Your task to perform on an android device: open a new tab in the chrome app Image 0: 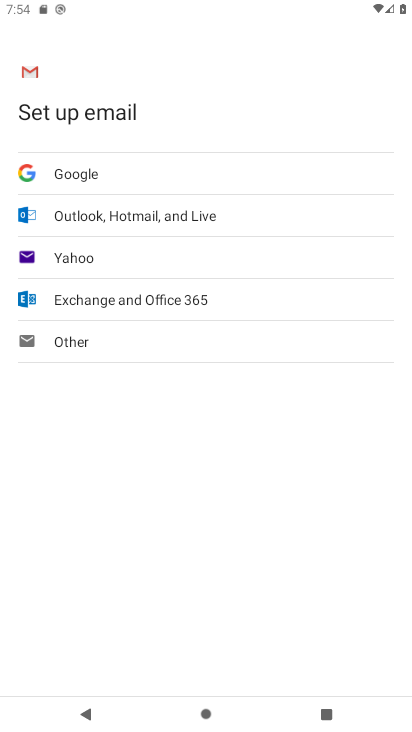
Step 0: press home button
Your task to perform on an android device: open a new tab in the chrome app Image 1: 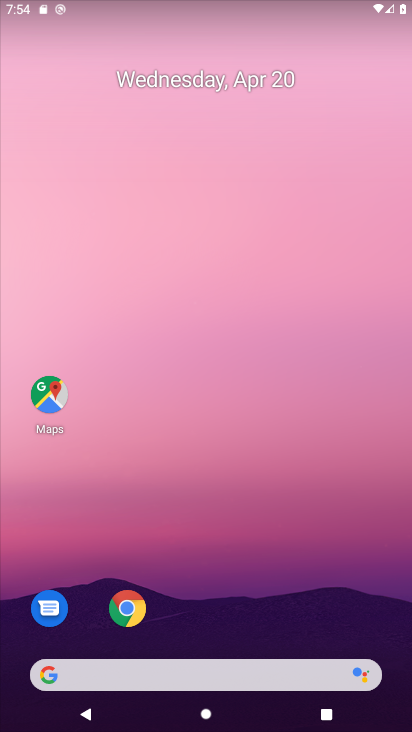
Step 1: click (123, 617)
Your task to perform on an android device: open a new tab in the chrome app Image 2: 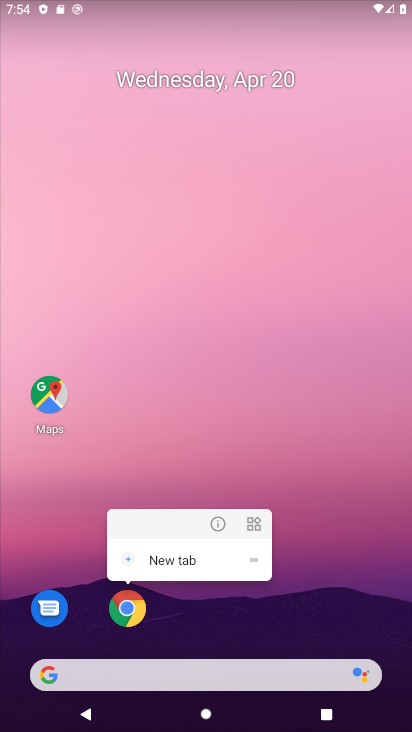
Step 2: click (123, 617)
Your task to perform on an android device: open a new tab in the chrome app Image 3: 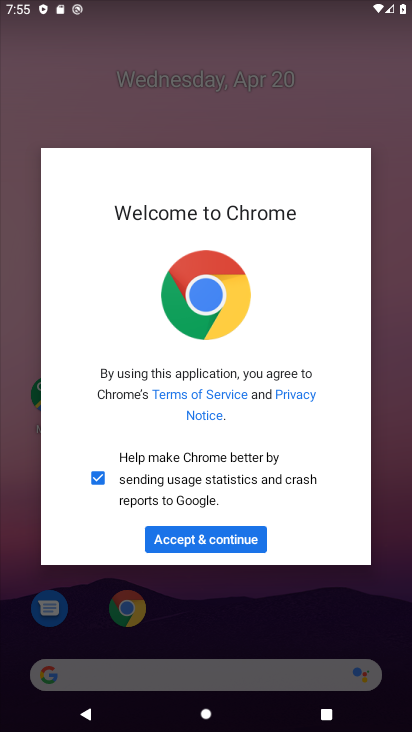
Step 3: click (224, 538)
Your task to perform on an android device: open a new tab in the chrome app Image 4: 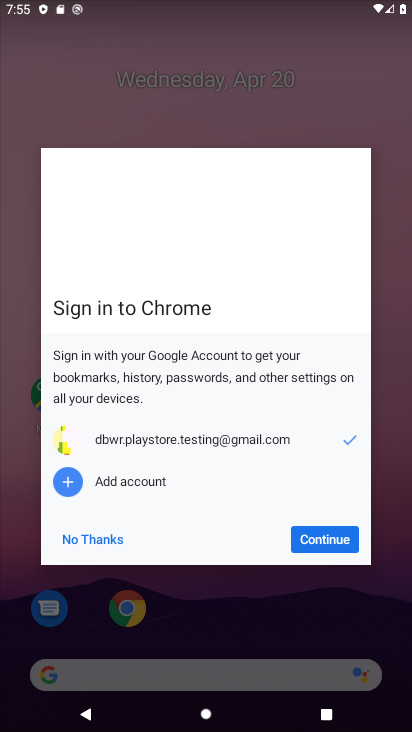
Step 4: click (321, 537)
Your task to perform on an android device: open a new tab in the chrome app Image 5: 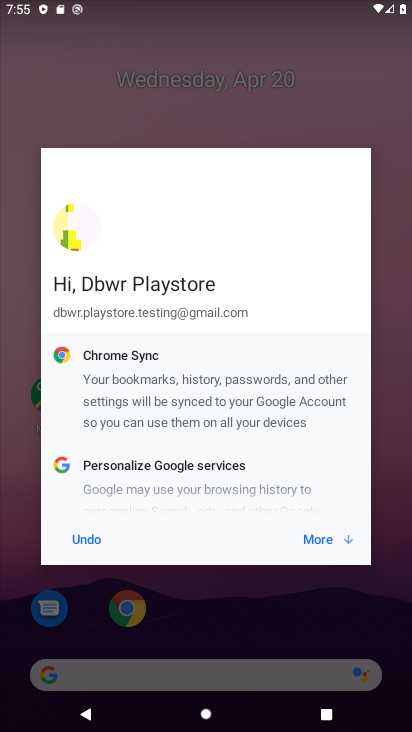
Step 5: click (311, 538)
Your task to perform on an android device: open a new tab in the chrome app Image 6: 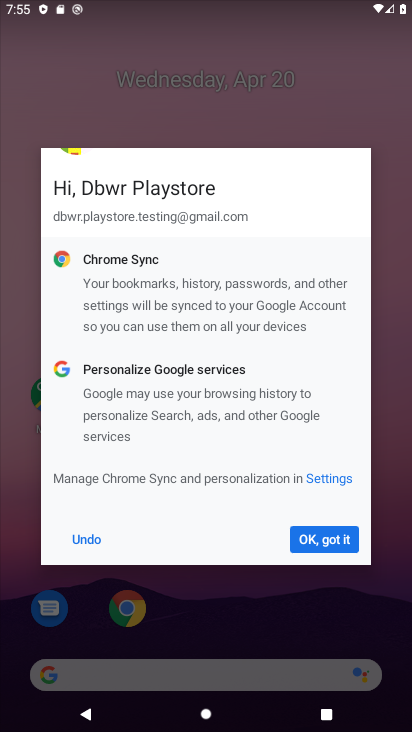
Step 6: click (308, 547)
Your task to perform on an android device: open a new tab in the chrome app Image 7: 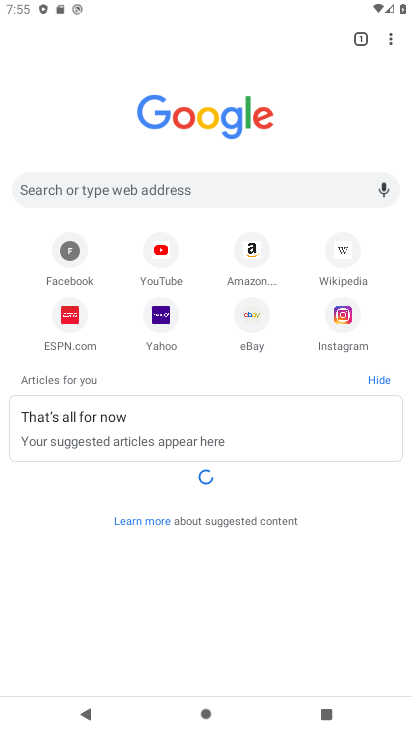
Step 7: task complete